Your task to perform on an android device: open the mobile data screen to see how much data has been used Image 0: 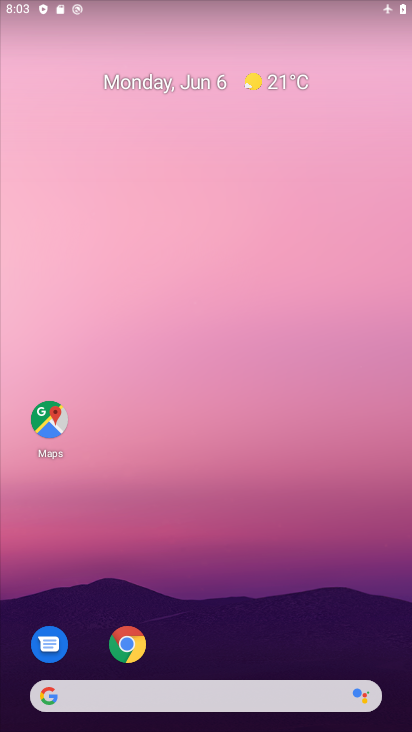
Step 0: drag from (201, 684) to (157, 194)
Your task to perform on an android device: open the mobile data screen to see how much data has been used Image 1: 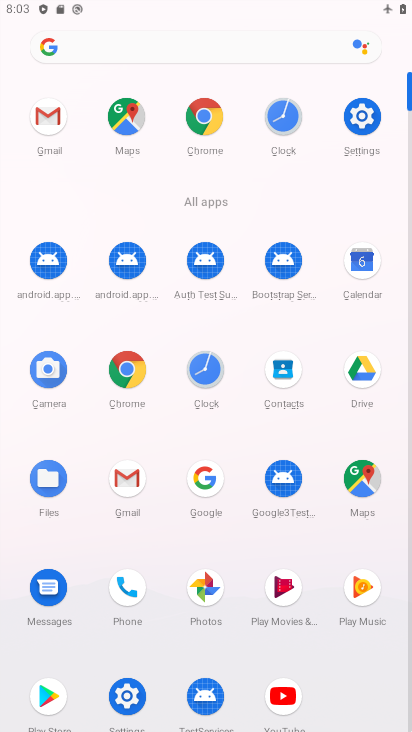
Step 1: click (113, 688)
Your task to perform on an android device: open the mobile data screen to see how much data has been used Image 2: 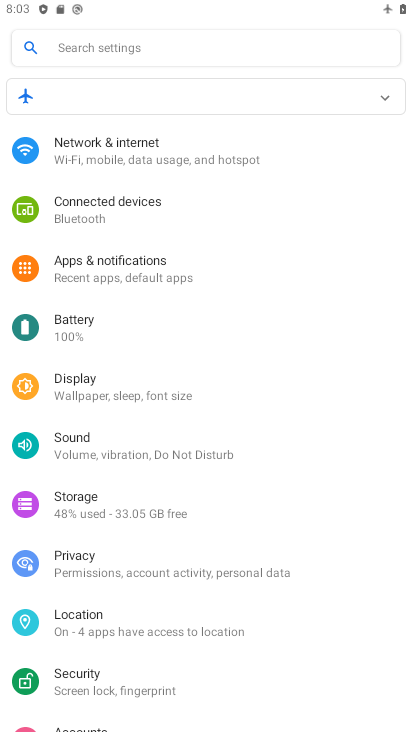
Step 2: click (149, 150)
Your task to perform on an android device: open the mobile data screen to see how much data has been used Image 3: 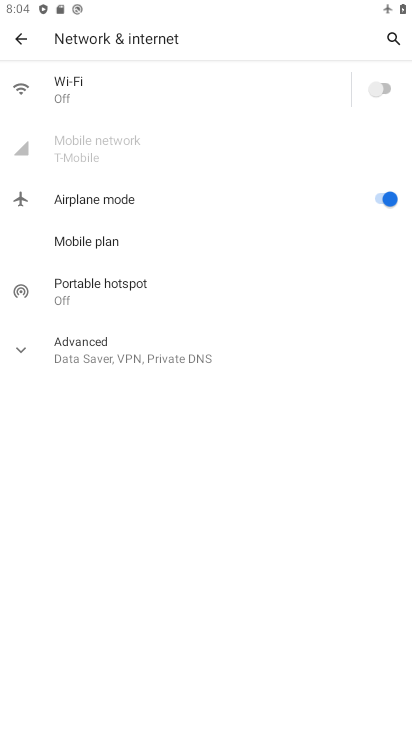
Step 3: click (72, 155)
Your task to perform on an android device: open the mobile data screen to see how much data has been used Image 4: 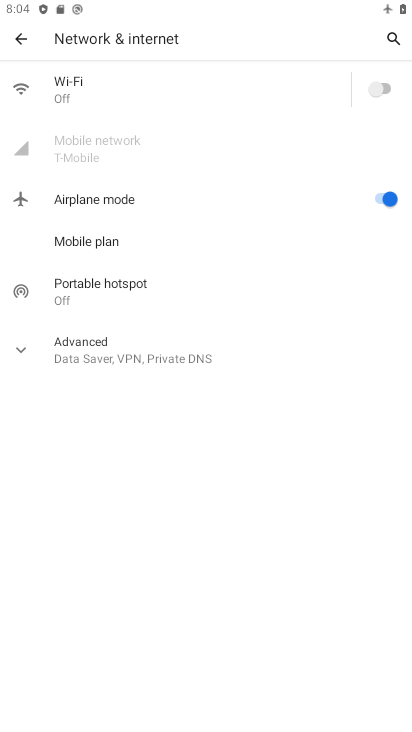
Step 4: task complete